Your task to perform on an android device: Clear the cart on bestbuy.com. Add "usb-c" to the cart on bestbuy.com, then select checkout. Image 0: 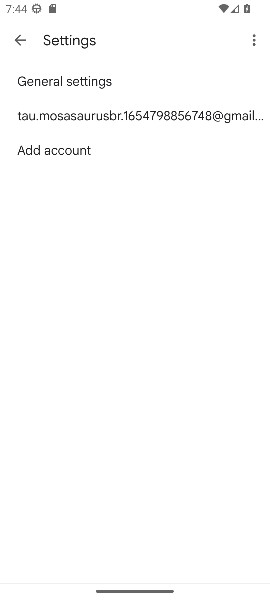
Step 0: press home button
Your task to perform on an android device: Clear the cart on bestbuy.com. Add "usb-c" to the cart on bestbuy.com, then select checkout. Image 1: 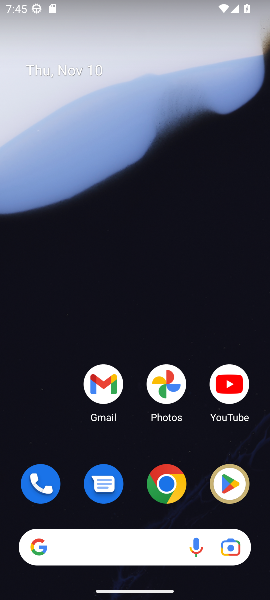
Step 1: click (163, 491)
Your task to perform on an android device: Clear the cart on bestbuy.com. Add "usb-c" to the cart on bestbuy.com, then select checkout. Image 2: 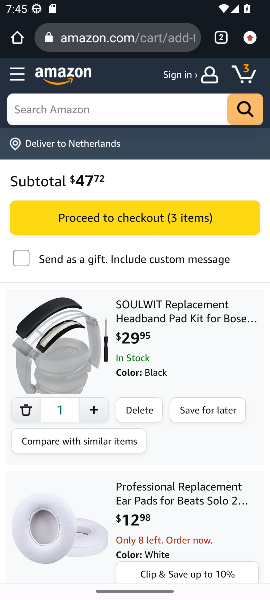
Step 2: click (128, 44)
Your task to perform on an android device: Clear the cart on bestbuy.com. Add "usb-c" to the cart on bestbuy.com, then select checkout. Image 3: 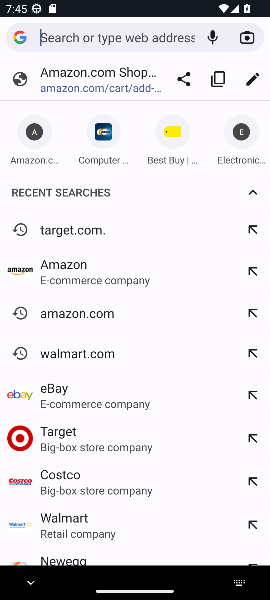
Step 3: click (167, 138)
Your task to perform on an android device: Clear the cart on bestbuy.com. Add "usb-c" to the cart on bestbuy.com, then select checkout. Image 4: 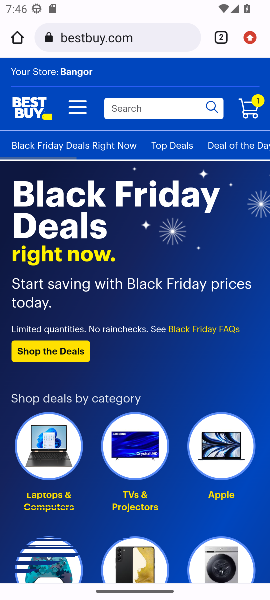
Step 4: click (245, 105)
Your task to perform on an android device: Clear the cart on bestbuy.com. Add "usb-c" to the cart on bestbuy.com, then select checkout. Image 5: 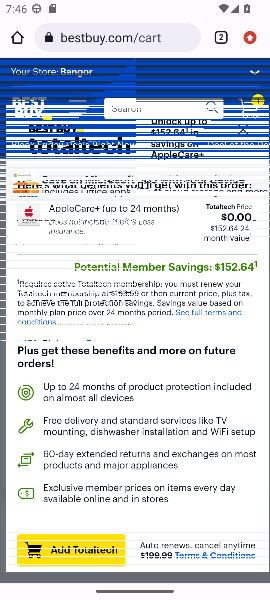
Step 5: drag from (215, 386) to (228, 285)
Your task to perform on an android device: Clear the cart on bestbuy.com. Add "usb-c" to the cart on bestbuy.com, then select checkout. Image 6: 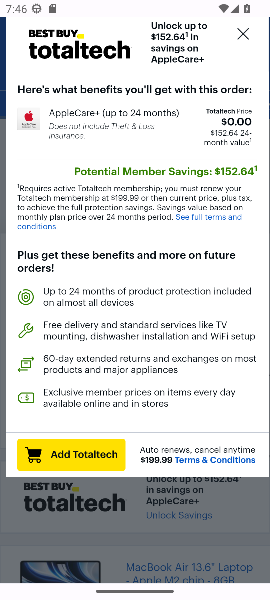
Step 6: click (252, 512)
Your task to perform on an android device: Clear the cart on bestbuy.com. Add "usb-c" to the cart on bestbuy.com, then select checkout. Image 7: 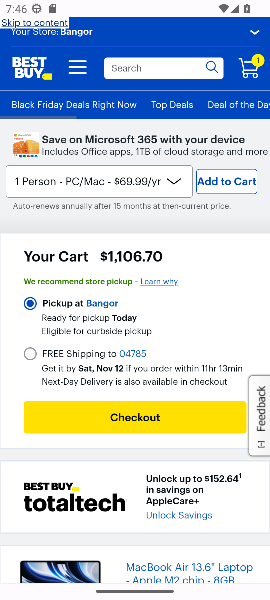
Step 7: drag from (153, 378) to (177, 199)
Your task to perform on an android device: Clear the cart on bestbuy.com. Add "usb-c" to the cart on bestbuy.com, then select checkout. Image 8: 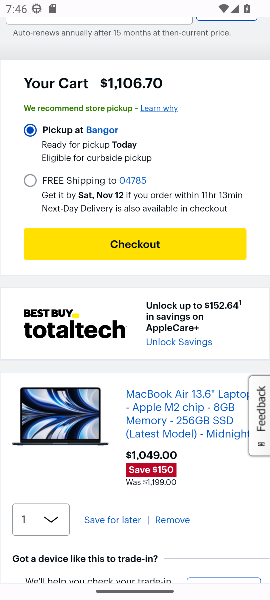
Step 8: click (168, 523)
Your task to perform on an android device: Clear the cart on bestbuy.com. Add "usb-c" to the cart on bestbuy.com, then select checkout. Image 9: 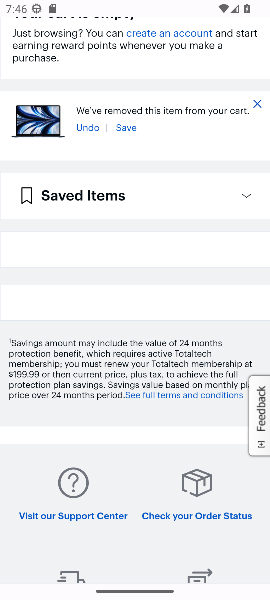
Step 9: drag from (172, 257) to (152, 455)
Your task to perform on an android device: Clear the cart on bestbuy.com. Add "usb-c" to the cart on bestbuy.com, then select checkout. Image 10: 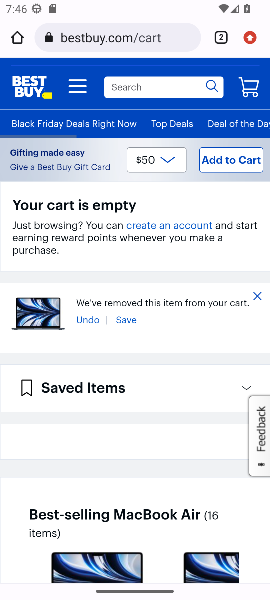
Step 10: click (170, 91)
Your task to perform on an android device: Clear the cart on bestbuy.com. Add "usb-c" to the cart on bestbuy.com, then select checkout. Image 11: 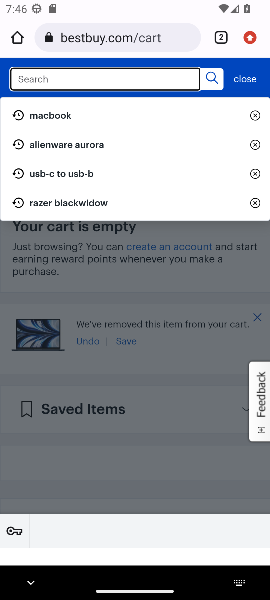
Step 11: type "usb-c"
Your task to perform on an android device: Clear the cart on bestbuy.com. Add "usb-c" to the cart on bestbuy.com, then select checkout. Image 12: 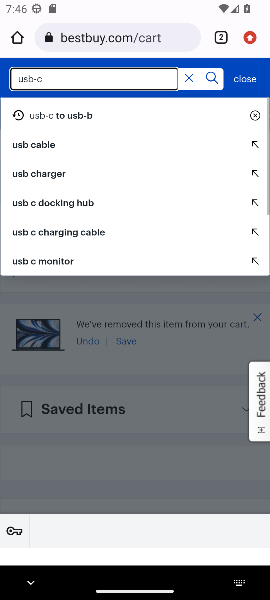
Step 12: click (214, 80)
Your task to perform on an android device: Clear the cart on bestbuy.com. Add "usb-c" to the cart on bestbuy.com, then select checkout. Image 13: 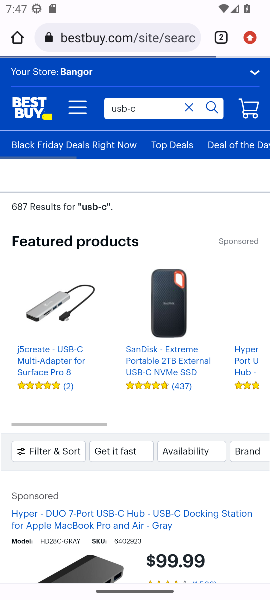
Step 13: drag from (117, 463) to (111, 288)
Your task to perform on an android device: Clear the cart on bestbuy.com. Add "usb-c" to the cart on bestbuy.com, then select checkout. Image 14: 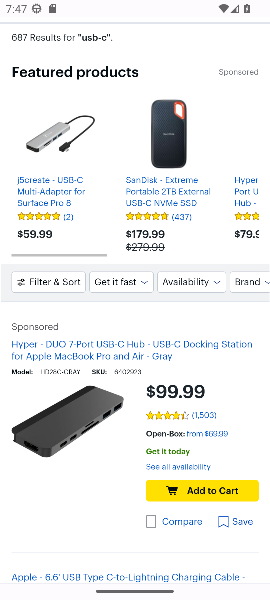
Step 14: click (198, 488)
Your task to perform on an android device: Clear the cart on bestbuy.com. Add "usb-c" to the cart on bestbuy.com, then select checkout. Image 15: 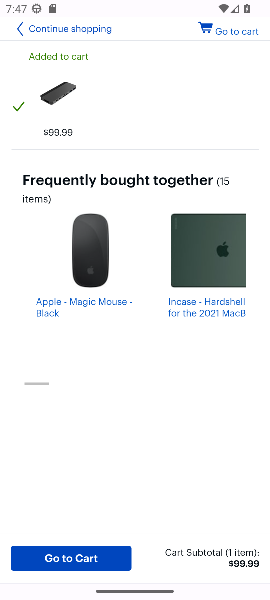
Step 15: click (249, 31)
Your task to perform on an android device: Clear the cart on bestbuy.com. Add "usb-c" to the cart on bestbuy.com, then select checkout. Image 16: 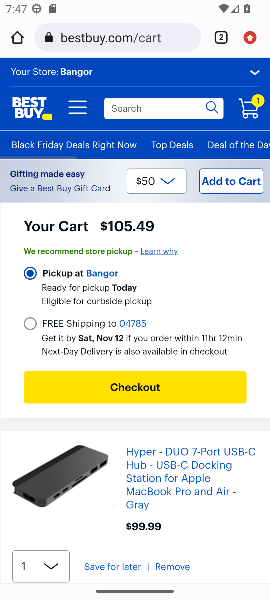
Step 16: click (147, 393)
Your task to perform on an android device: Clear the cart on bestbuy.com. Add "usb-c" to the cart on bestbuy.com, then select checkout. Image 17: 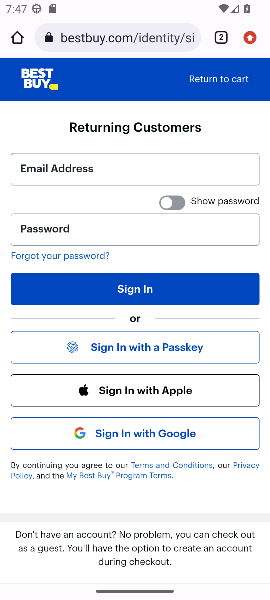
Step 17: task complete